Your task to perform on an android device: Go to eBay Image 0: 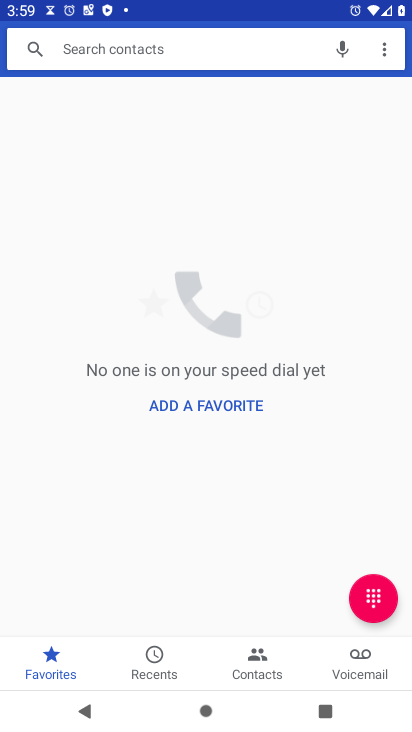
Step 0: press back button
Your task to perform on an android device: Go to eBay Image 1: 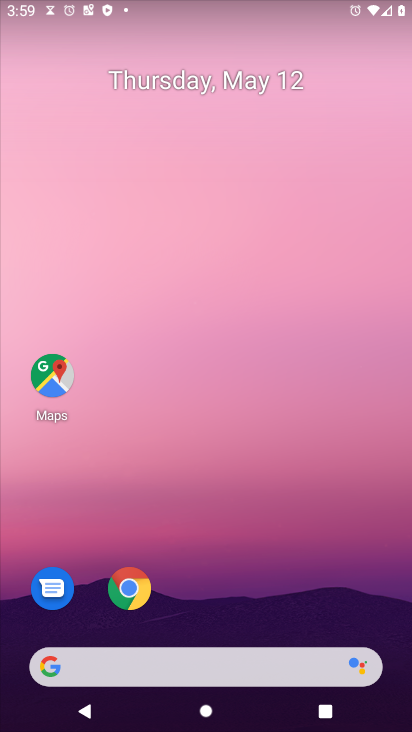
Step 1: drag from (274, 554) to (204, 60)
Your task to perform on an android device: Go to eBay Image 2: 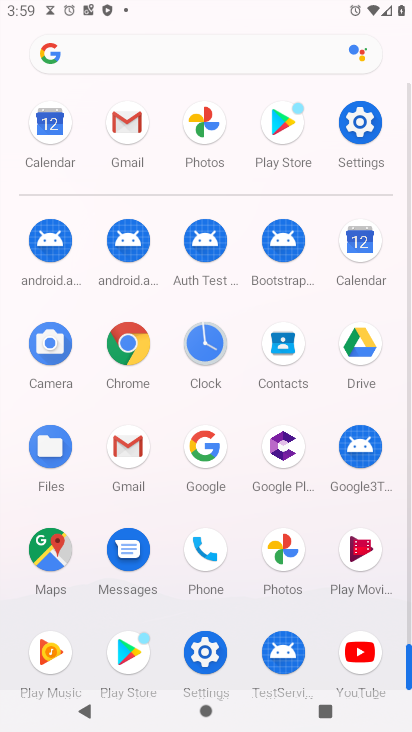
Step 2: click (131, 341)
Your task to perform on an android device: Go to eBay Image 3: 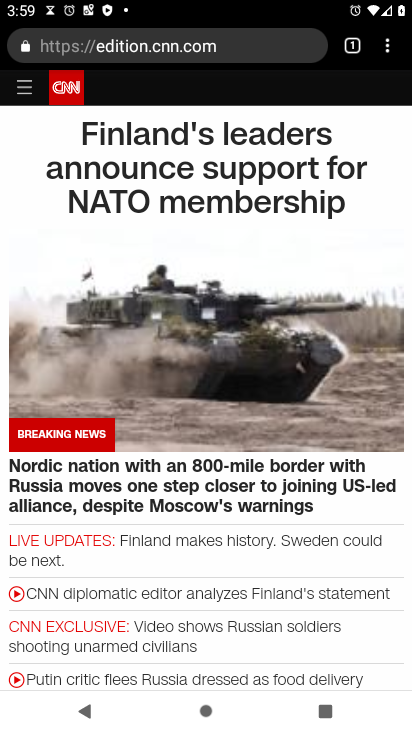
Step 3: click (194, 41)
Your task to perform on an android device: Go to eBay Image 4: 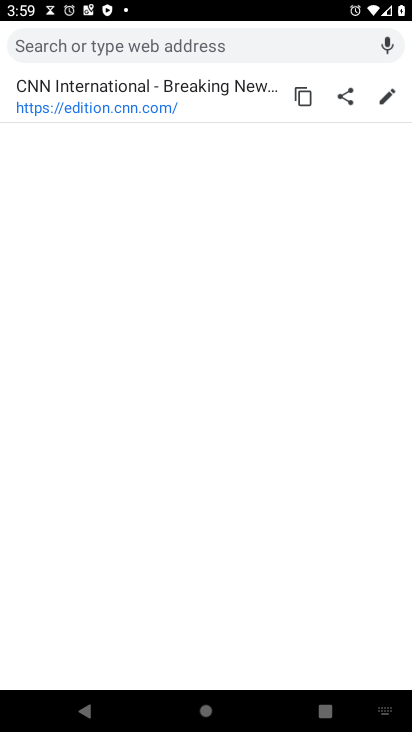
Step 4: type "eBay"
Your task to perform on an android device: Go to eBay Image 5: 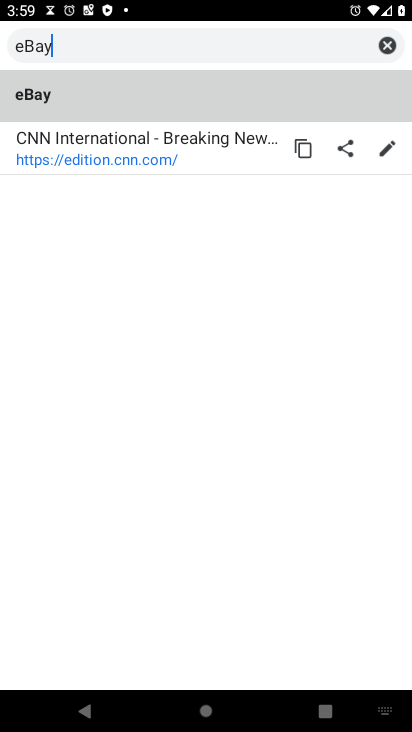
Step 5: type ""
Your task to perform on an android device: Go to eBay Image 6: 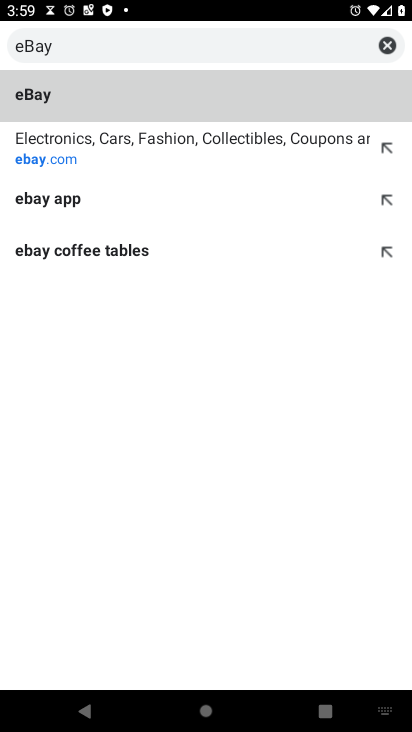
Step 6: click (73, 143)
Your task to perform on an android device: Go to eBay Image 7: 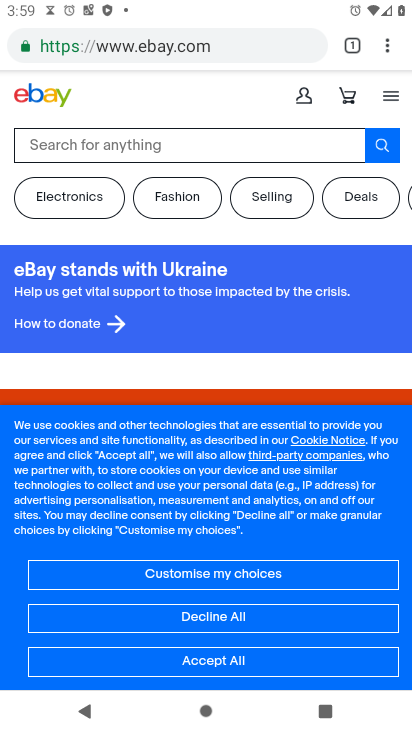
Step 7: task complete